Your task to perform on an android device: Go to Yahoo.com Image 0: 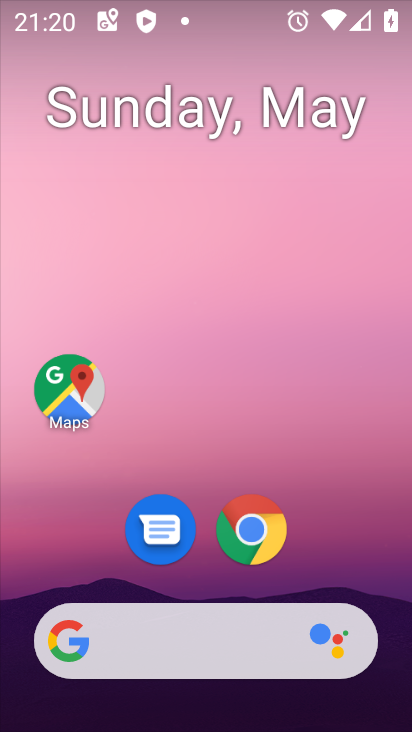
Step 0: click (257, 532)
Your task to perform on an android device: Go to Yahoo.com Image 1: 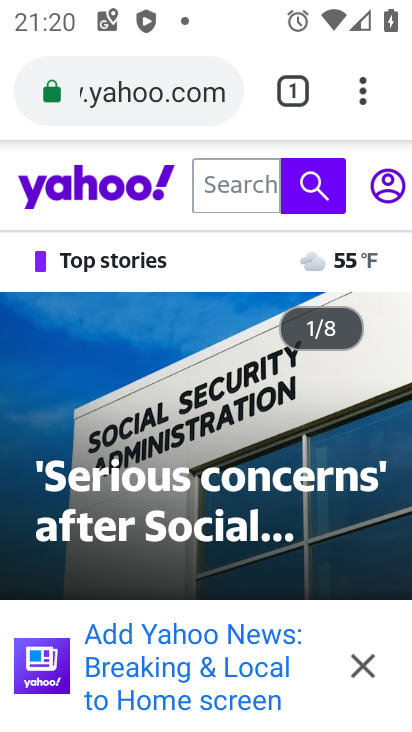
Step 1: task complete